Your task to perform on an android device: turn pop-ups on in chrome Image 0: 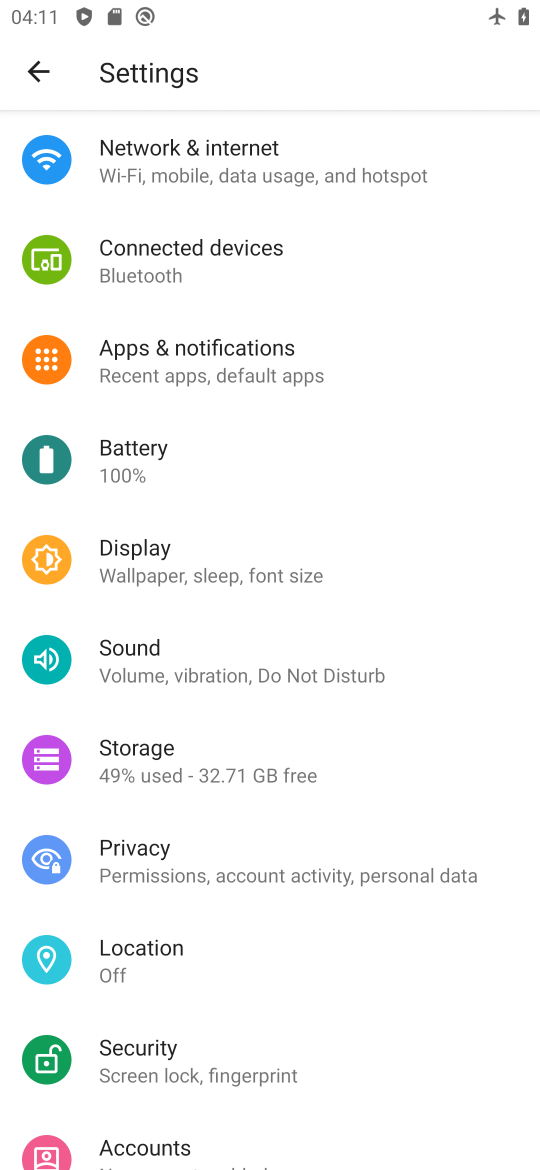
Step 0: press home button
Your task to perform on an android device: turn pop-ups on in chrome Image 1: 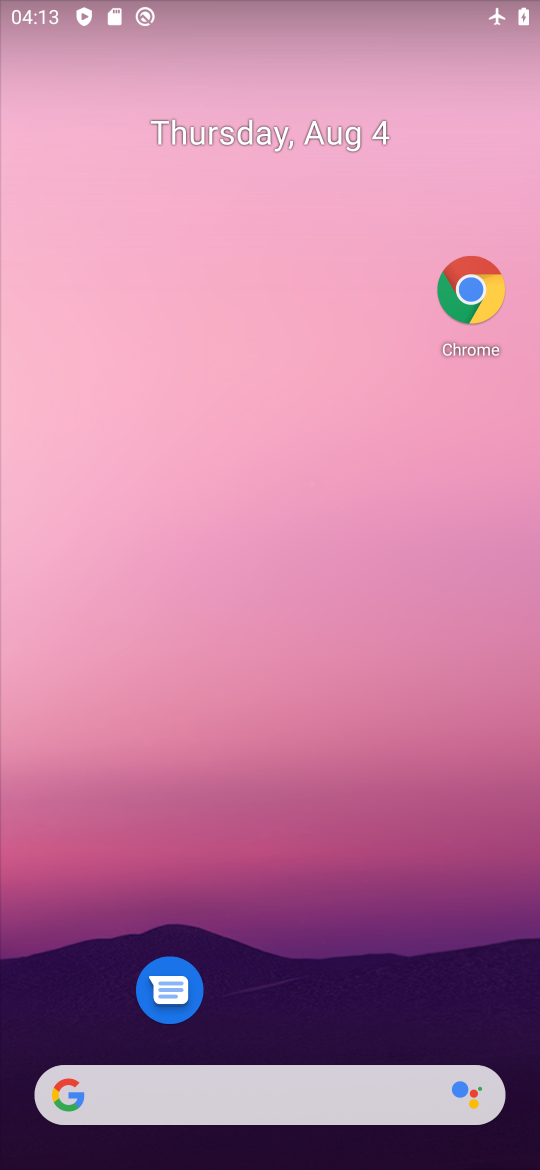
Step 1: click (474, 264)
Your task to perform on an android device: turn pop-ups on in chrome Image 2: 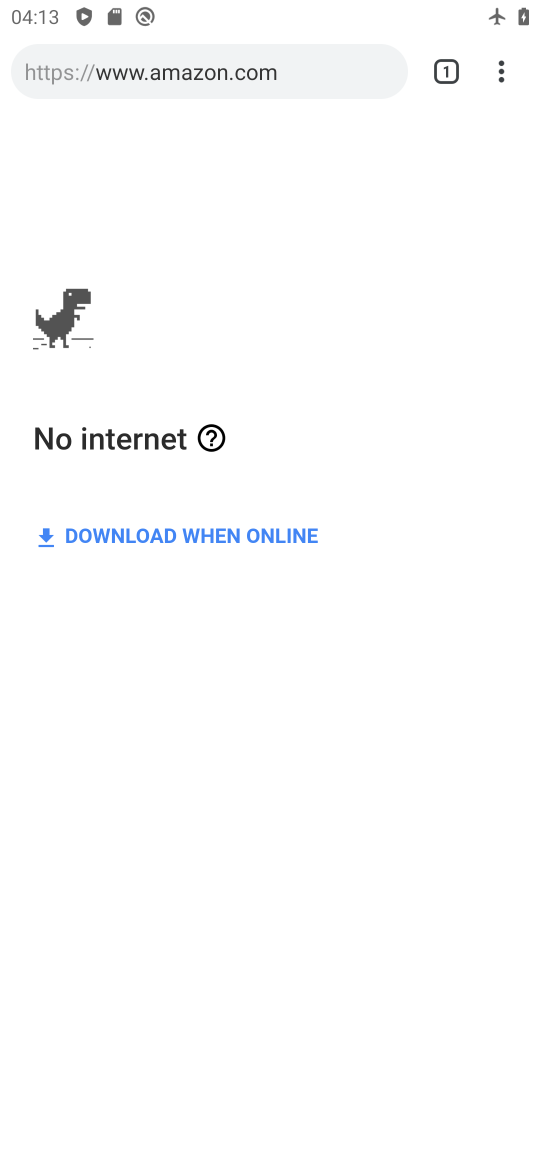
Step 2: click (498, 68)
Your task to perform on an android device: turn pop-ups on in chrome Image 3: 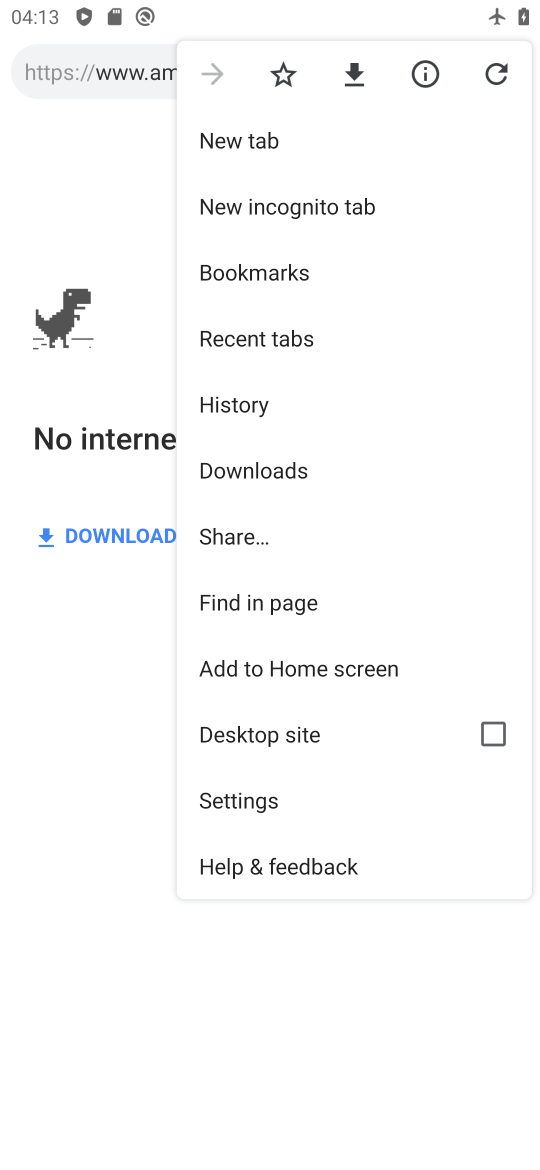
Step 3: click (348, 800)
Your task to perform on an android device: turn pop-ups on in chrome Image 4: 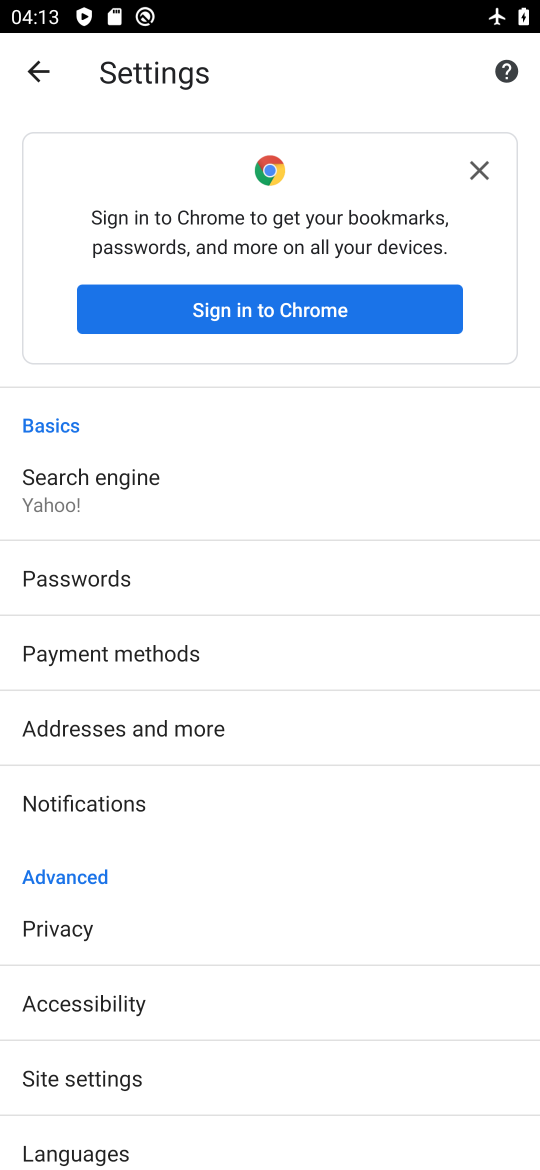
Step 4: click (137, 1070)
Your task to perform on an android device: turn pop-ups on in chrome Image 5: 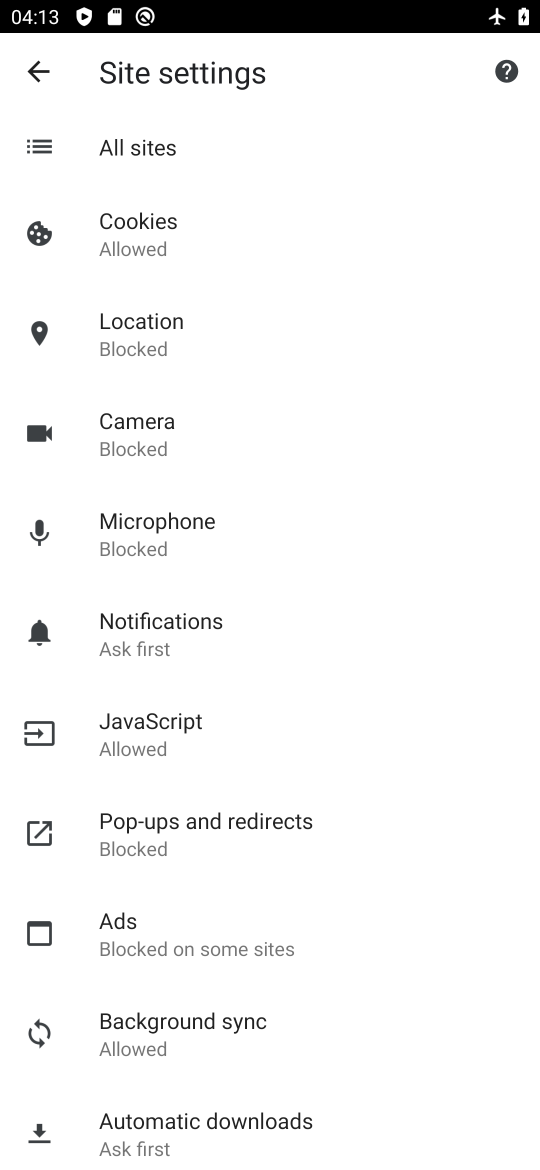
Step 5: click (256, 853)
Your task to perform on an android device: turn pop-ups on in chrome Image 6: 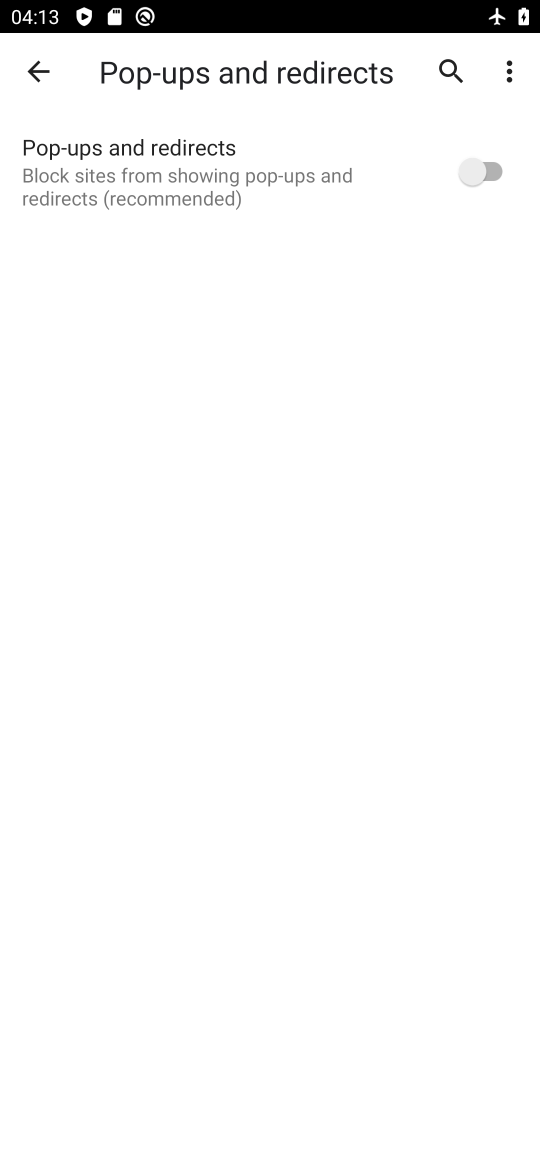
Step 6: task complete